Your task to perform on an android device: Open Chrome and go to the settings page Image 0: 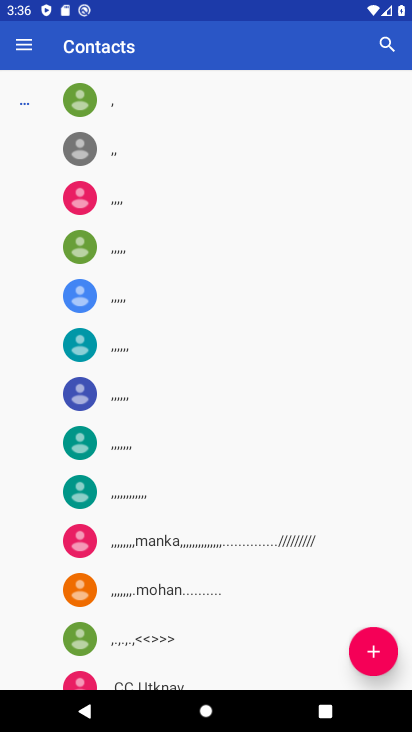
Step 0: press home button
Your task to perform on an android device: Open Chrome and go to the settings page Image 1: 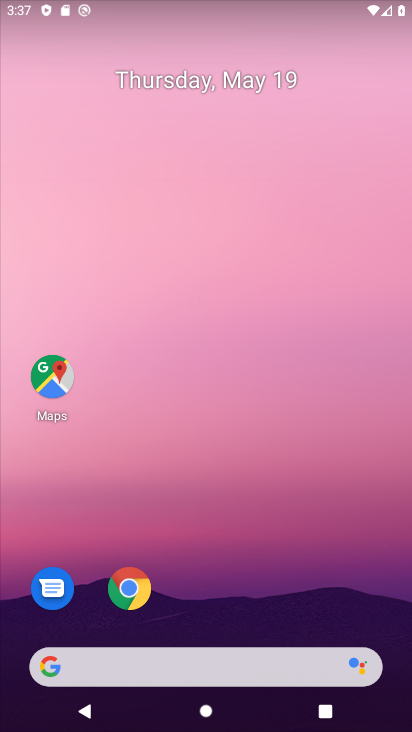
Step 1: click (135, 591)
Your task to perform on an android device: Open Chrome and go to the settings page Image 2: 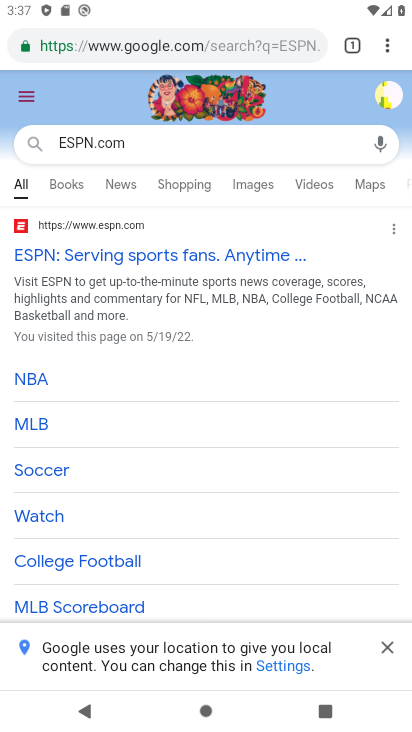
Step 2: click (381, 41)
Your task to perform on an android device: Open Chrome and go to the settings page Image 3: 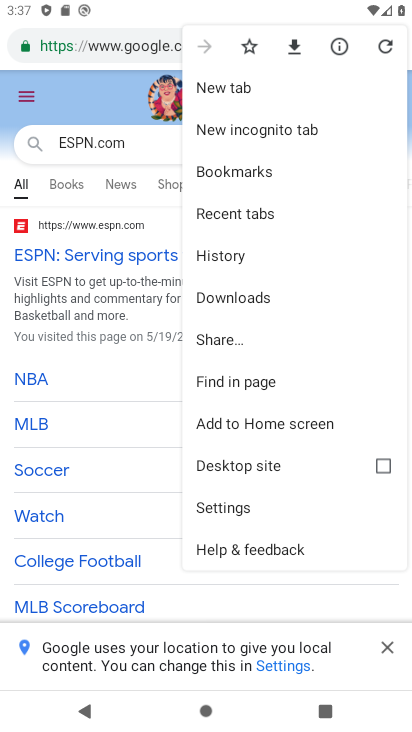
Step 3: click (249, 511)
Your task to perform on an android device: Open Chrome and go to the settings page Image 4: 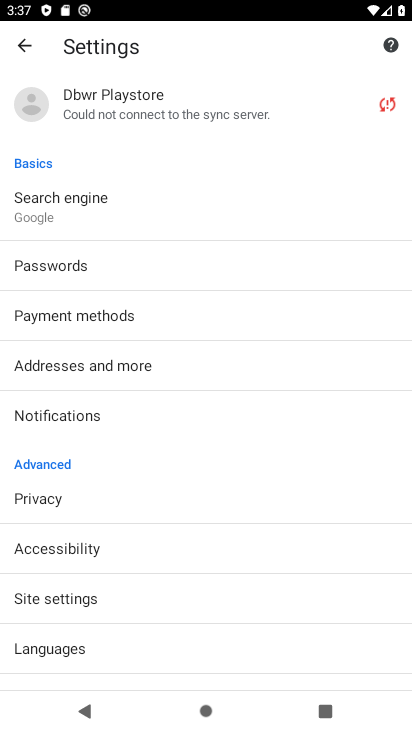
Step 4: task complete